Your task to perform on an android device: turn notification dots off Image 0: 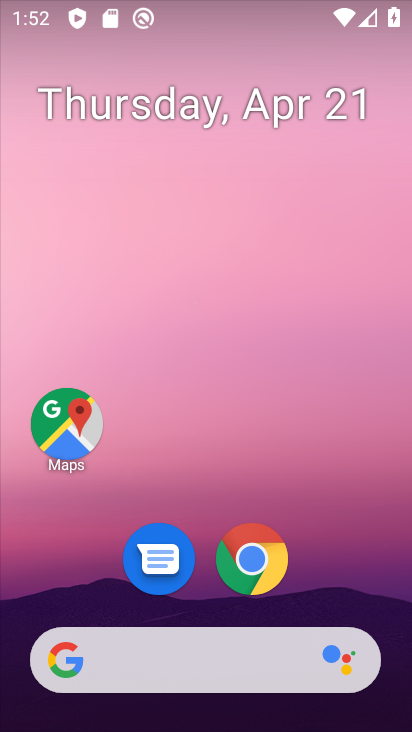
Step 0: drag from (198, 564) to (212, 139)
Your task to perform on an android device: turn notification dots off Image 1: 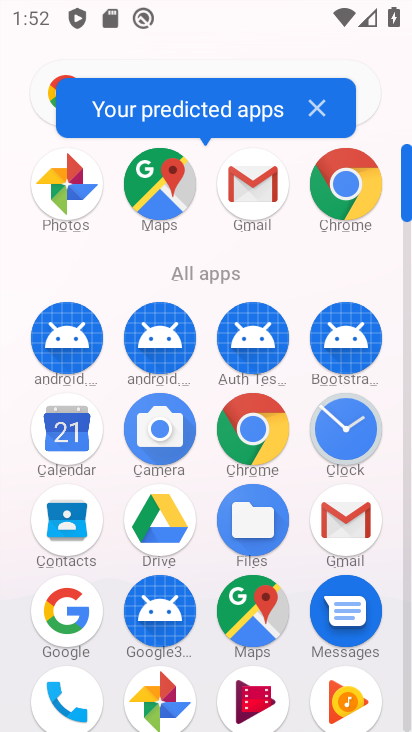
Step 1: drag from (194, 558) to (230, 8)
Your task to perform on an android device: turn notification dots off Image 2: 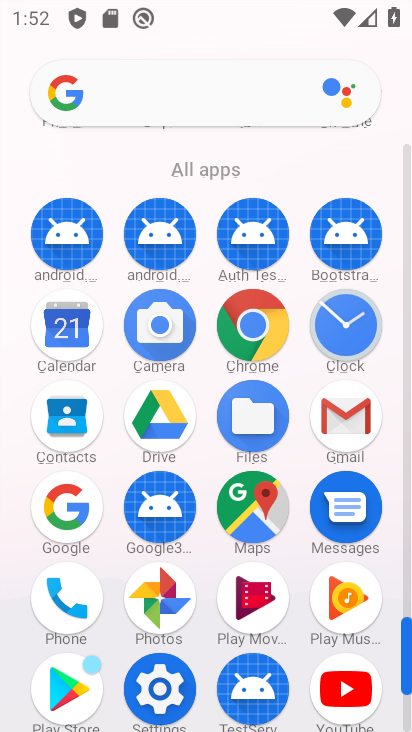
Step 2: click (163, 658)
Your task to perform on an android device: turn notification dots off Image 3: 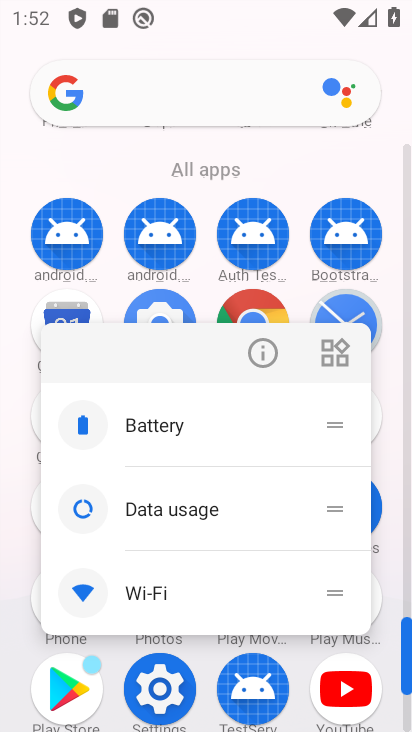
Step 3: click (161, 682)
Your task to perform on an android device: turn notification dots off Image 4: 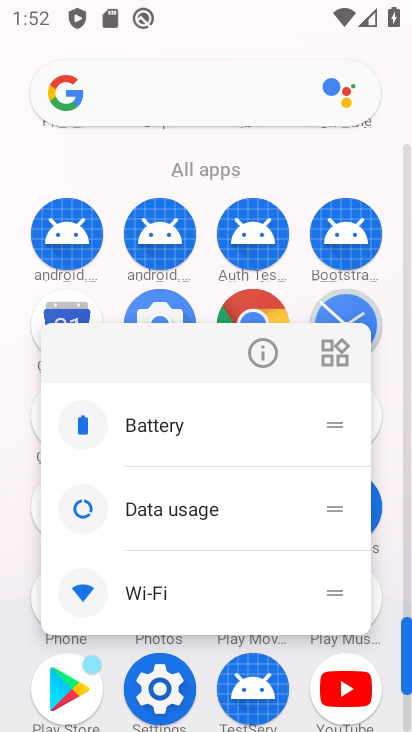
Step 4: click (158, 698)
Your task to perform on an android device: turn notification dots off Image 5: 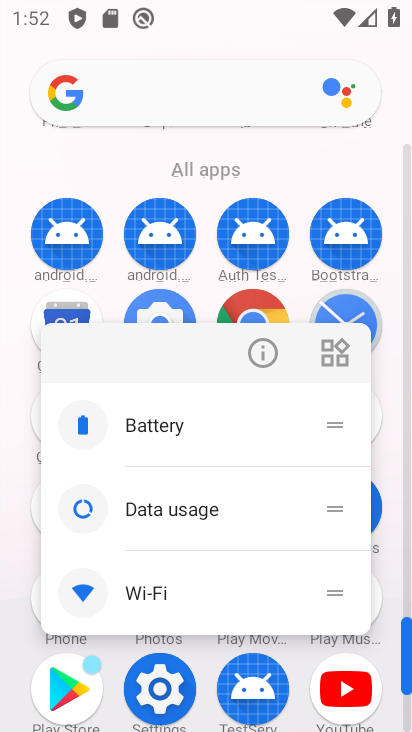
Step 5: click (156, 698)
Your task to perform on an android device: turn notification dots off Image 6: 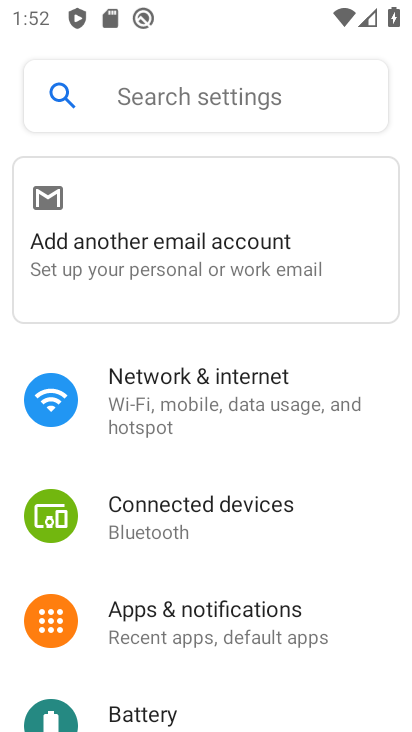
Step 6: drag from (245, 621) to (249, 310)
Your task to perform on an android device: turn notification dots off Image 7: 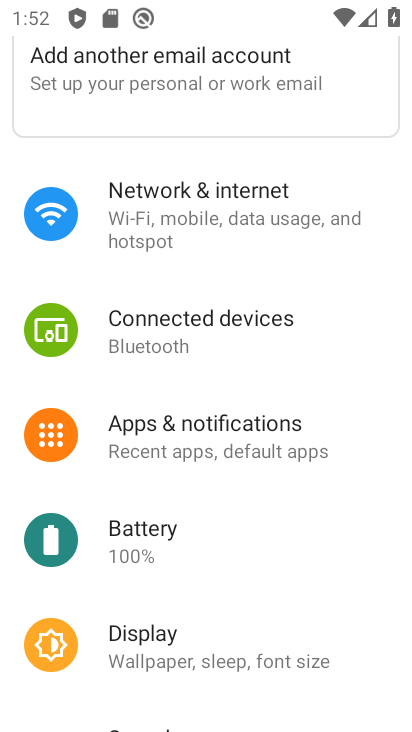
Step 7: click (206, 420)
Your task to perform on an android device: turn notification dots off Image 8: 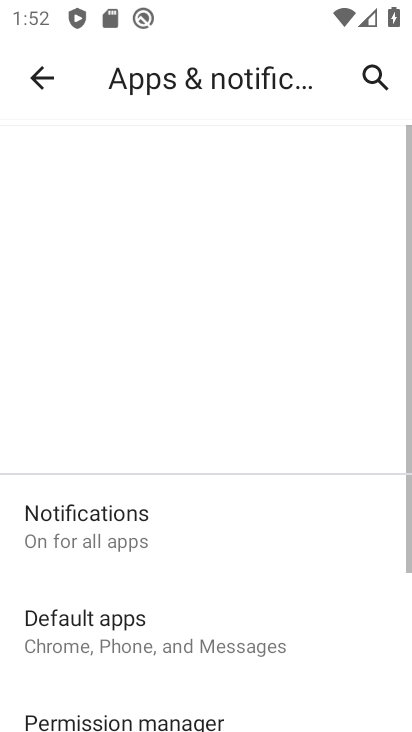
Step 8: click (153, 554)
Your task to perform on an android device: turn notification dots off Image 9: 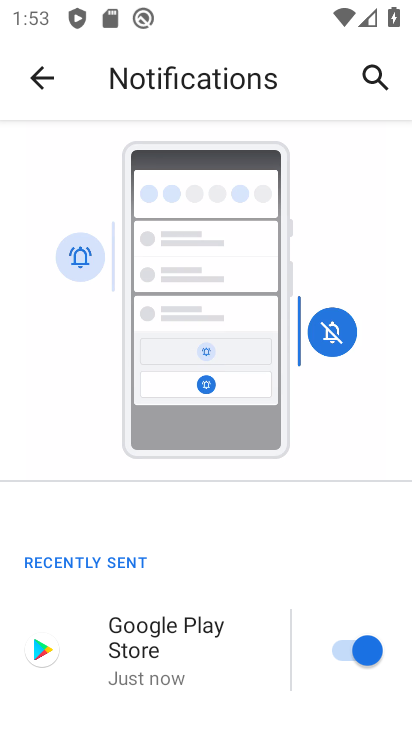
Step 9: drag from (219, 641) to (196, 3)
Your task to perform on an android device: turn notification dots off Image 10: 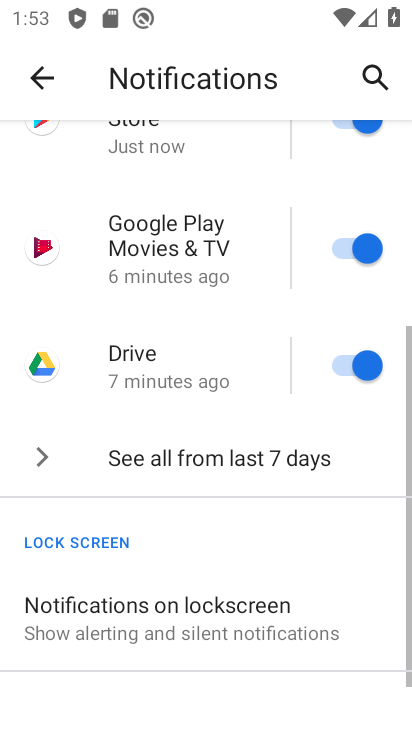
Step 10: drag from (181, 582) to (203, 294)
Your task to perform on an android device: turn notification dots off Image 11: 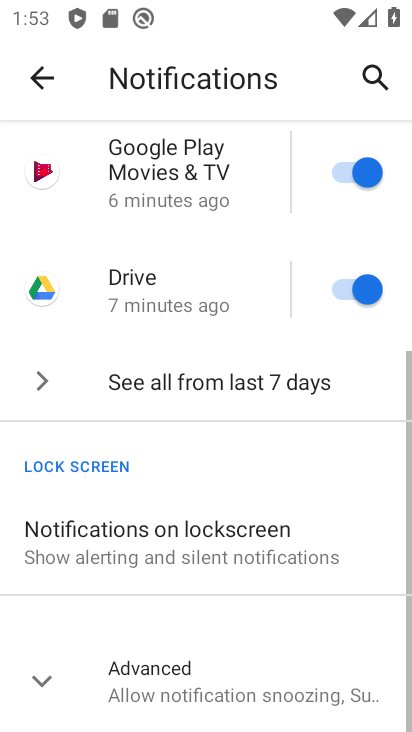
Step 11: click (193, 683)
Your task to perform on an android device: turn notification dots off Image 12: 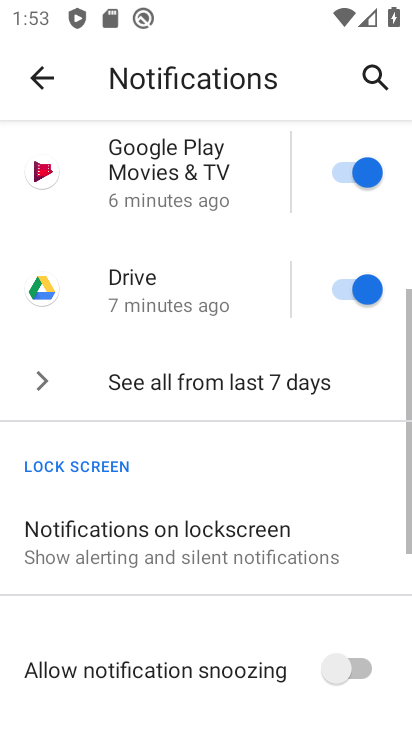
Step 12: drag from (200, 619) to (200, 354)
Your task to perform on an android device: turn notification dots off Image 13: 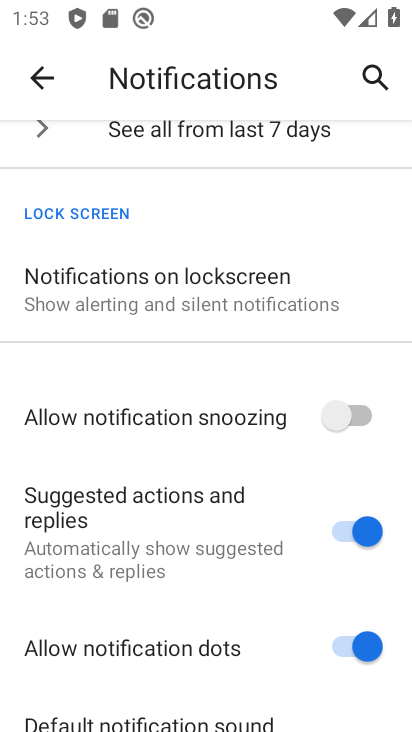
Step 13: click (352, 650)
Your task to perform on an android device: turn notification dots off Image 14: 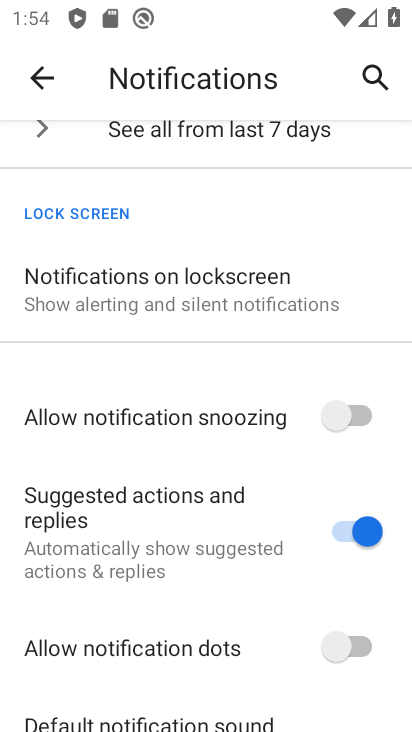
Step 14: task complete